Your task to perform on an android device: When is my next meeting? Image 0: 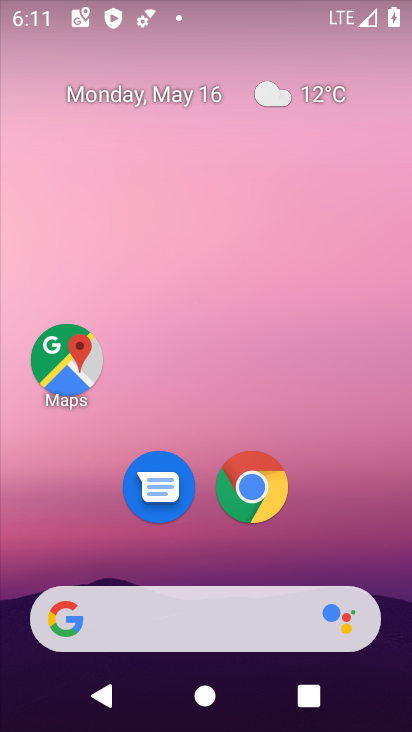
Step 0: drag from (337, 500) to (346, 156)
Your task to perform on an android device: When is my next meeting? Image 1: 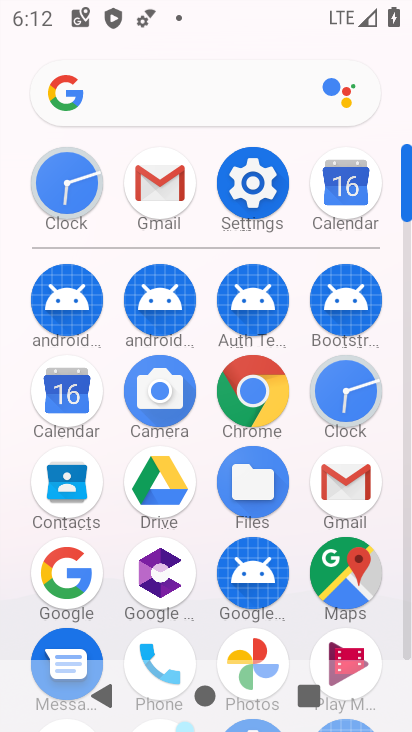
Step 1: click (87, 384)
Your task to perform on an android device: When is my next meeting? Image 2: 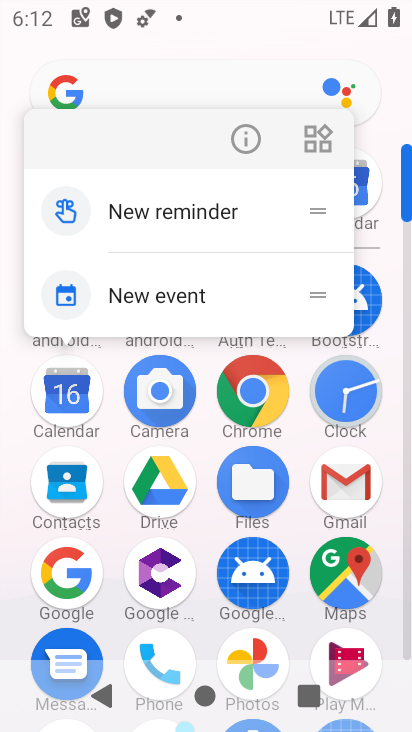
Step 2: click (74, 393)
Your task to perform on an android device: When is my next meeting? Image 3: 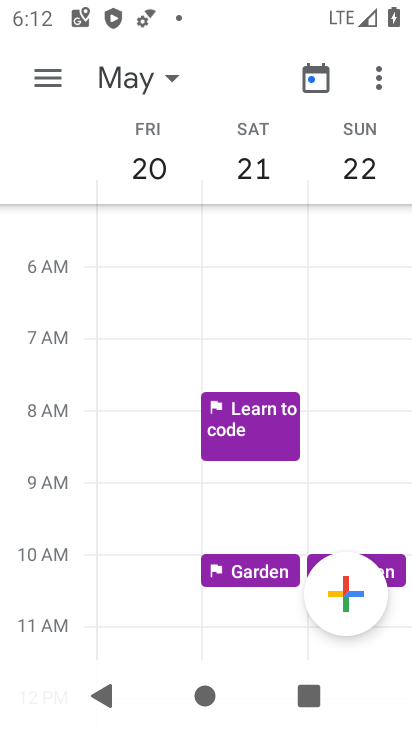
Step 3: task complete